Your task to perform on an android device: Open accessibility settings Image 0: 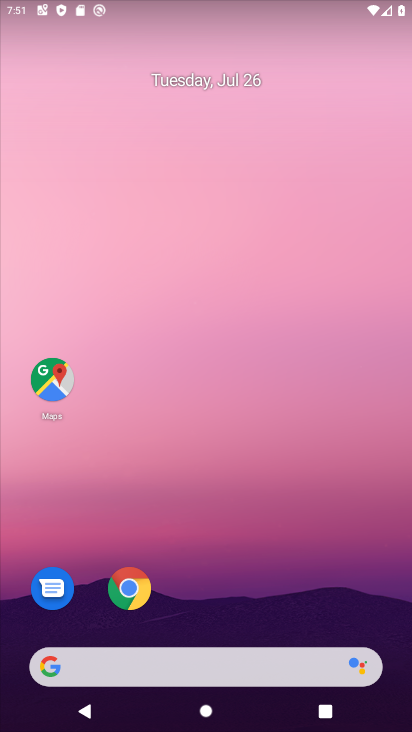
Step 0: drag from (239, 549) to (240, 92)
Your task to perform on an android device: Open accessibility settings Image 1: 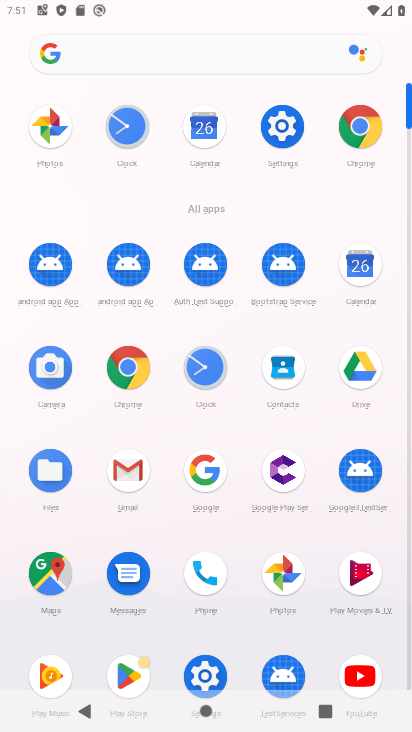
Step 1: click (281, 135)
Your task to perform on an android device: Open accessibility settings Image 2: 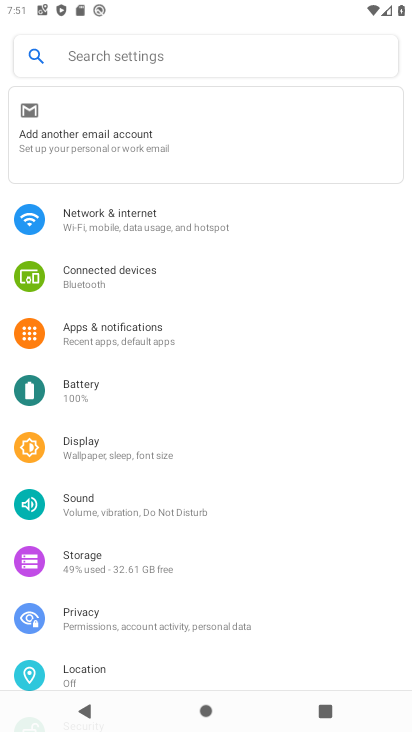
Step 2: drag from (233, 558) to (238, 348)
Your task to perform on an android device: Open accessibility settings Image 3: 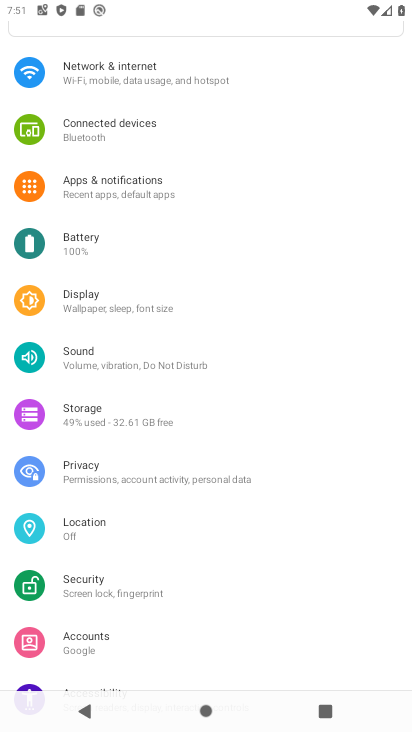
Step 3: drag from (202, 585) to (184, 396)
Your task to perform on an android device: Open accessibility settings Image 4: 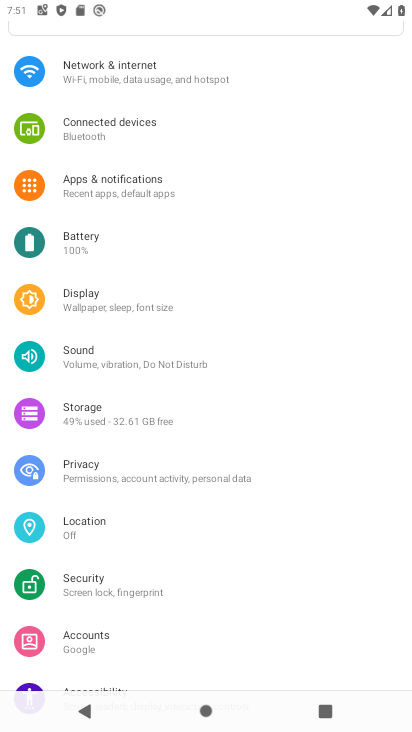
Step 4: drag from (145, 613) to (143, 425)
Your task to perform on an android device: Open accessibility settings Image 5: 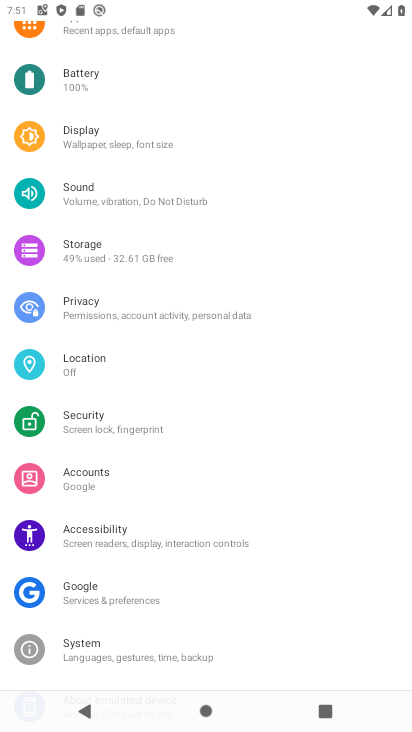
Step 5: click (126, 531)
Your task to perform on an android device: Open accessibility settings Image 6: 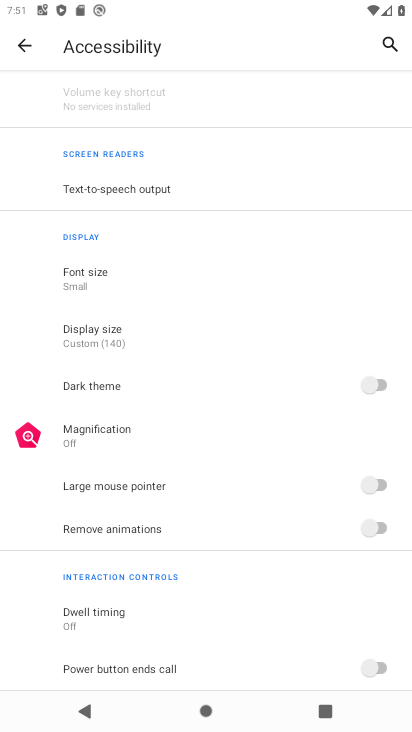
Step 6: task complete